Your task to perform on an android device: Clear the cart on ebay.com. Add "dell xps" to the cart on ebay.com, then select checkout. Image 0: 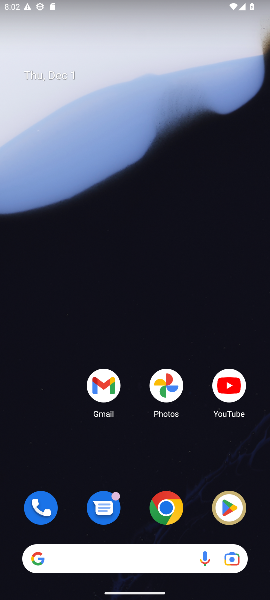
Step 0: click (161, 508)
Your task to perform on an android device: Clear the cart on ebay.com. Add "dell xps" to the cart on ebay.com, then select checkout. Image 1: 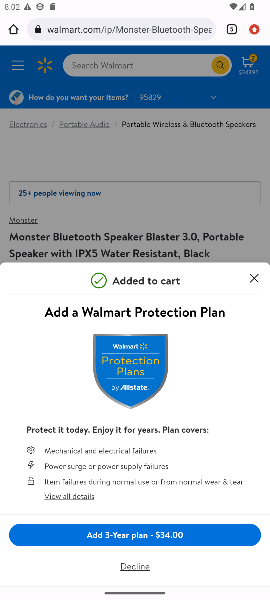
Step 1: click (231, 32)
Your task to perform on an android device: Clear the cart on ebay.com. Add "dell xps" to the cart on ebay.com, then select checkout. Image 2: 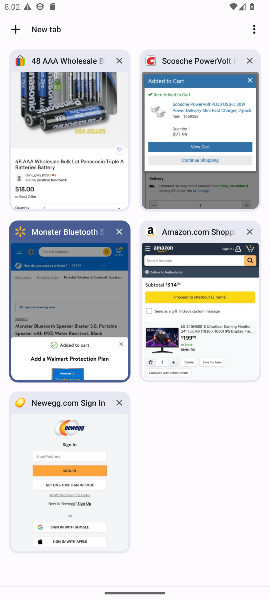
Step 2: click (63, 119)
Your task to perform on an android device: Clear the cart on ebay.com. Add "dell xps" to the cart on ebay.com, then select checkout. Image 3: 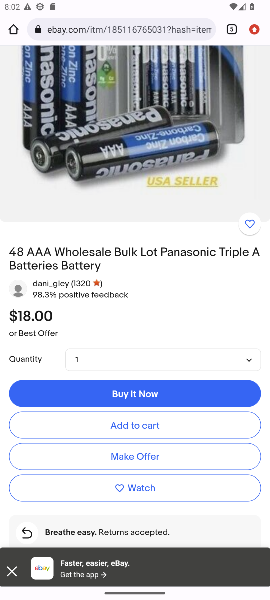
Step 3: drag from (231, 80) to (231, 397)
Your task to perform on an android device: Clear the cart on ebay.com. Add "dell xps" to the cart on ebay.com, then select checkout. Image 4: 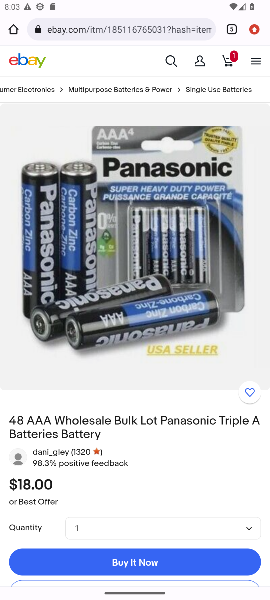
Step 4: click (228, 61)
Your task to perform on an android device: Clear the cart on ebay.com. Add "dell xps" to the cart on ebay.com, then select checkout. Image 5: 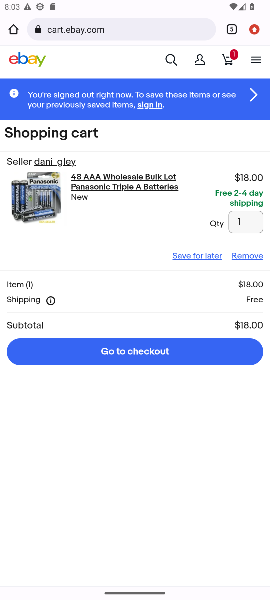
Step 5: click (240, 257)
Your task to perform on an android device: Clear the cart on ebay.com. Add "dell xps" to the cart on ebay.com, then select checkout. Image 6: 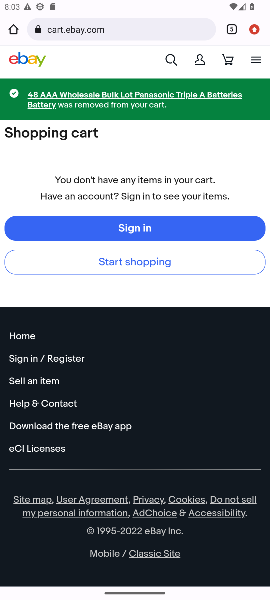
Step 6: click (170, 62)
Your task to perform on an android device: Clear the cart on ebay.com. Add "dell xps" to the cart on ebay.com, then select checkout. Image 7: 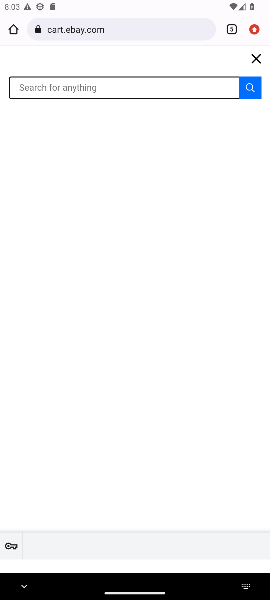
Step 7: click (107, 85)
Your task to perform on an android device: Clear the cart on ebay.com. Add "dell xps" to the cart on ebay.com, then select checkout. Image 8: 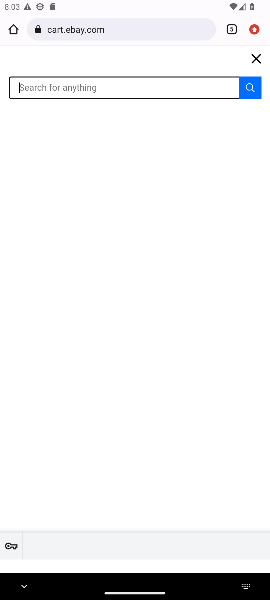
Step 8: type "dell xps"
Your task to perform on an android device: Clear the cart on ebay.com. Add "dell xps" to the cart on ebay.com, then select checkout. Image 9: 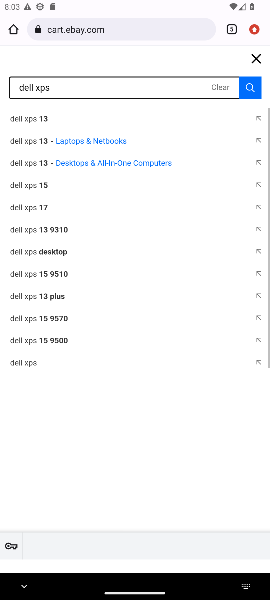
Step 9: click (248, 90)
Your task to perform on an android device: Clear the cart on ebay.com. Add "dell xps" to the cart on ebay.com, then select checkout. Image 10: 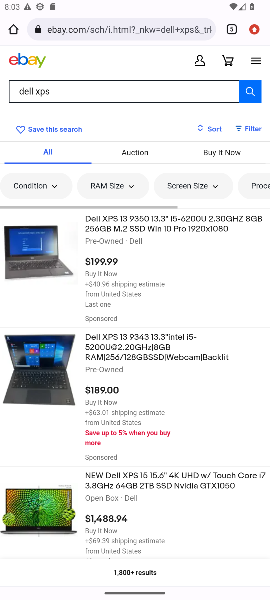
Step 10: click (33, 254)
Your task to perform on an android device: Clear the cart on ebay.com. Add "dell xps" to the cart on ebay.com, then select checkout. Image 11: 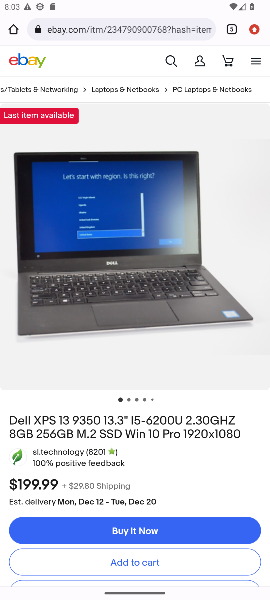
Step 11: click (11, 569)
Your task to perform on an android device: Clear the cart on ebay.com. Add "dell xps" to the cart on ebay.com, then select checkout. Image 12: 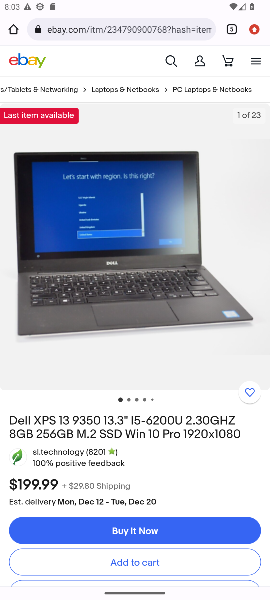
Step 12: click (66, 562)
Your task to perform on an android device: Clear the cart on ebay.com. Add "dell xps" to the cart on ebay.com, then select checkout. Image 13: 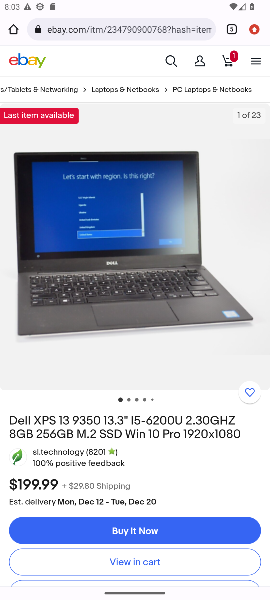
Step 13: click (66, 562)
Your task to perform on an android device: Clear the cart on ebay.com. Add "dell xps" to the cart on ebay.com, then select checkout. Image 14: 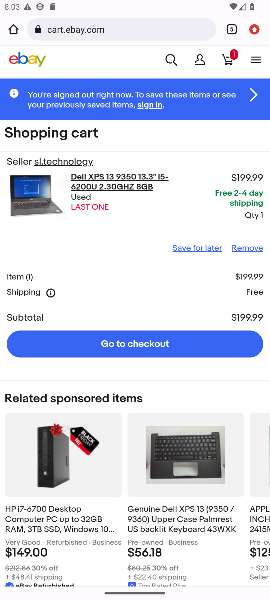
Step 14: click (138, 344)
Your task to perform on an android device: Clear the cart on ebay.com. Add "dell xps" to the cart on ebay.com, then select checkout. Image 15: 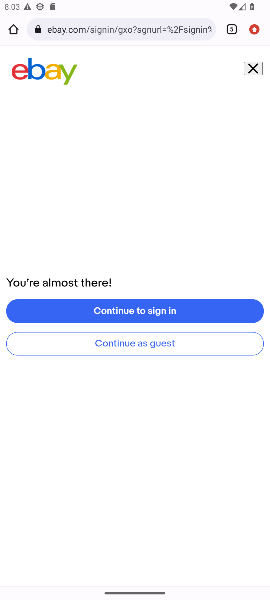
Step 15: click (138, 344)
Your task to perform on an android device: Clear the cart on ebay.com. Add "dell xps" to the cart on ebay.com, then select checkout. Image 16: 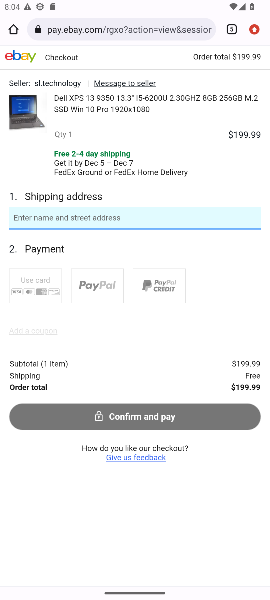
Step 16: task complete